Your task to perform on an android device: delete the emails in spam in the gmail app Image 0: 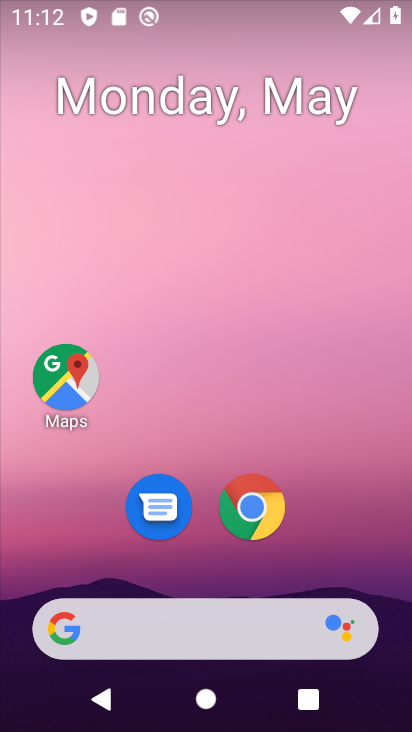
Step 0: drag from (329, 558) to (355, 255)
Your task to perform on an android device: delete the emails in spam in the gmail app Image 1: 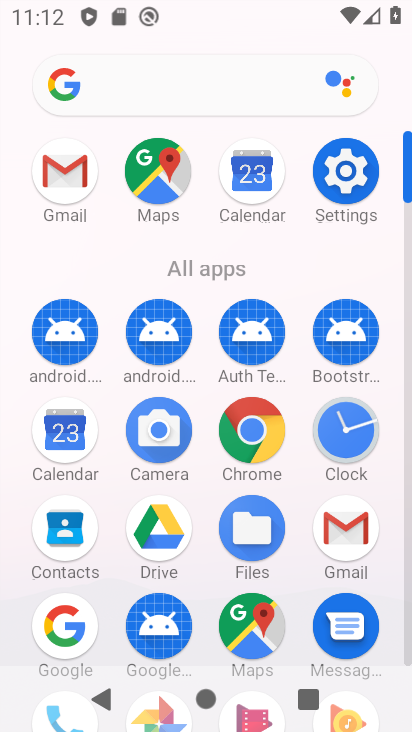
Step 1: click (332, 519)
Your task to perform on an android device: delete the emails in spam in the gmail app Image 2: 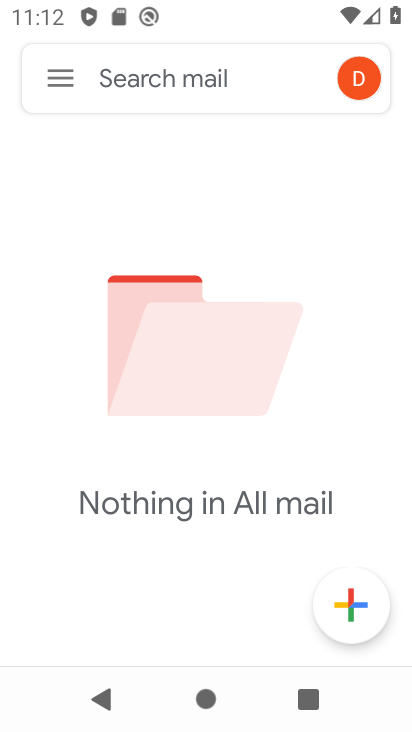
Step 2: click (64, 72)
Your task to perform on an android device: delete the emails in spam in the gmail app Image 3: 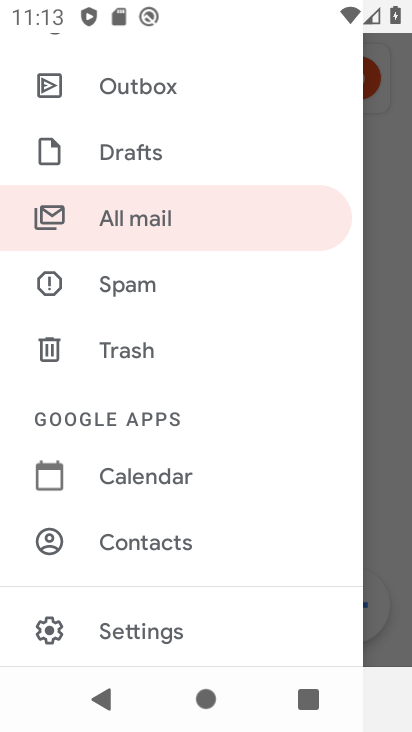
Step 3: click (155, 209)
Your task to perform on an android device: delete the emails in spam in the gmail app Image 4: 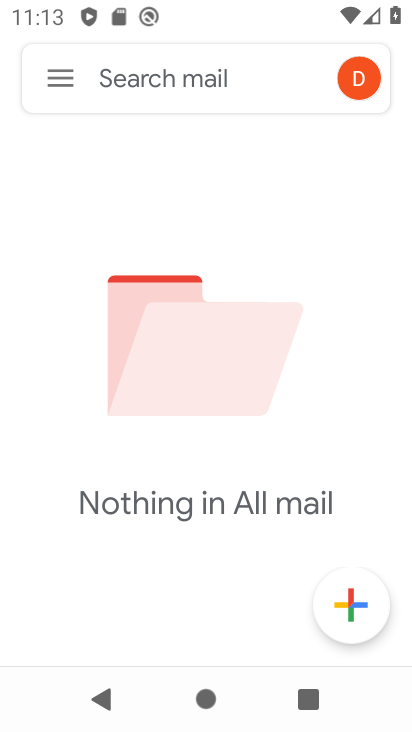
Step 4: task complete